Your task to perform on an android device: see tabs open on other devices in the chrome app Image 0: 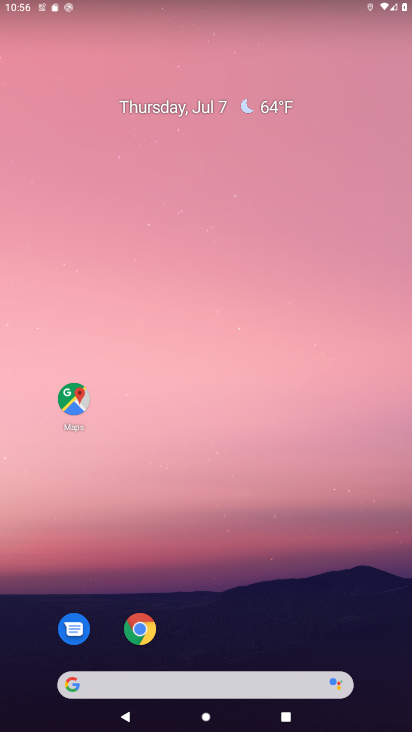
Step 0: click (141, 626)
Your task to perform on an android device: see tabs open on other devices in the chrome app Image 1: 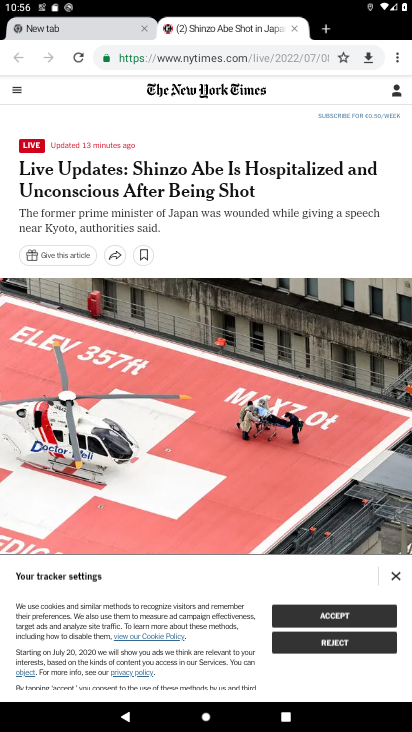
Step 1: click (399, 58)
Your task to perform on an android device: see tabs open on other devices in the chrome app Image 2: 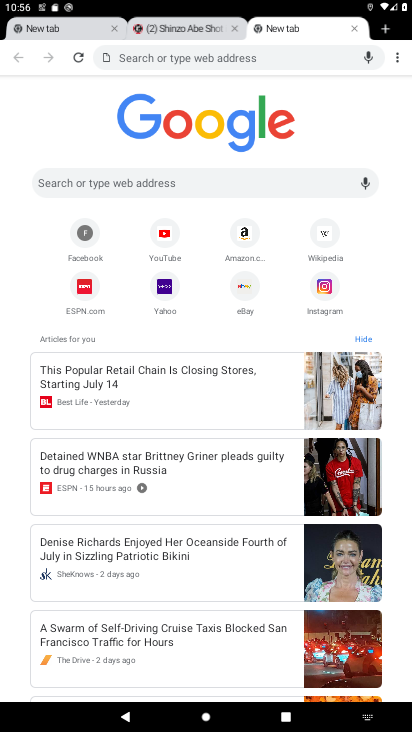
Step 2: click (399, 58)
Your task to perform on an android device: see tabs open on other devices in the chrome app Image 3: 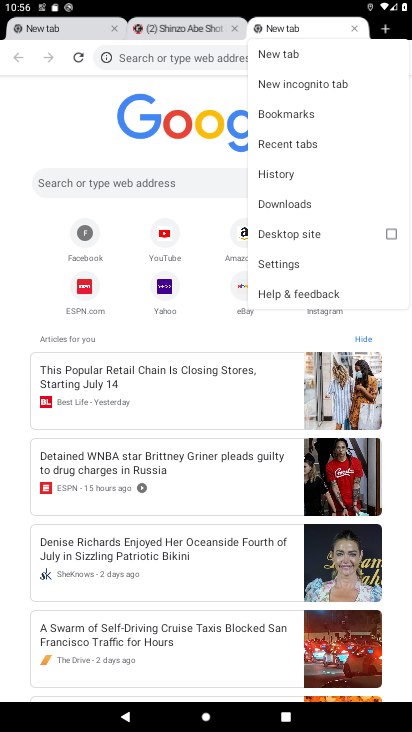
Step 3: click (312, 144)
Your task to perform on an android device: see tabs open on other devices in the chrome app Image 4: 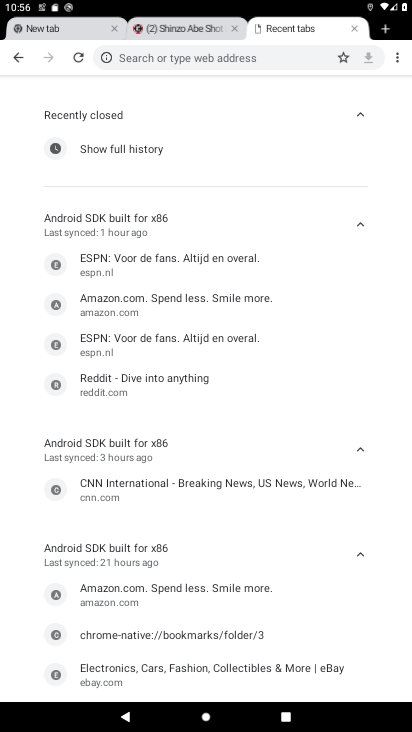
Step 4: task complete